Your task to perform on an android device: set default search engine in the chrome app Image 0: 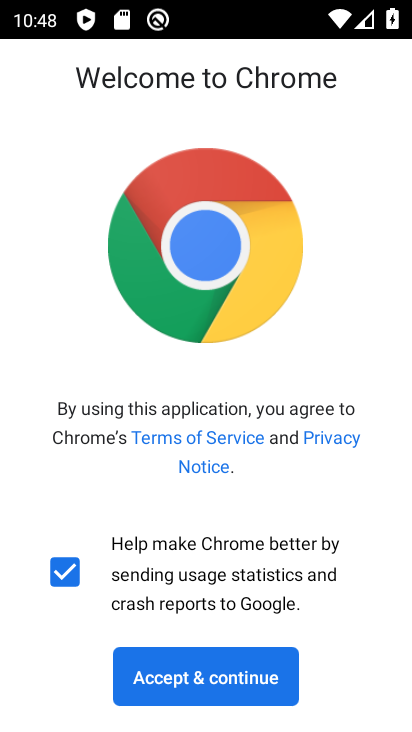
Step 0: click (193, 669)
Your task to perform on an android device: set default search engine in the chrome app Image 1: 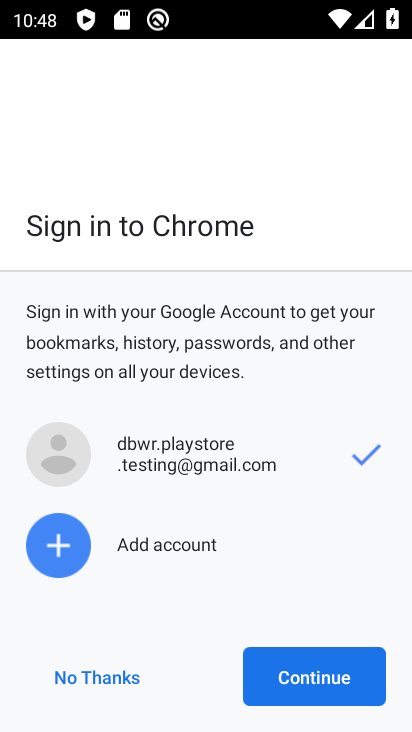
Step 1: click (325, 685)
Your task to perform on an android device: set default search engine in the chrome app Image 2: 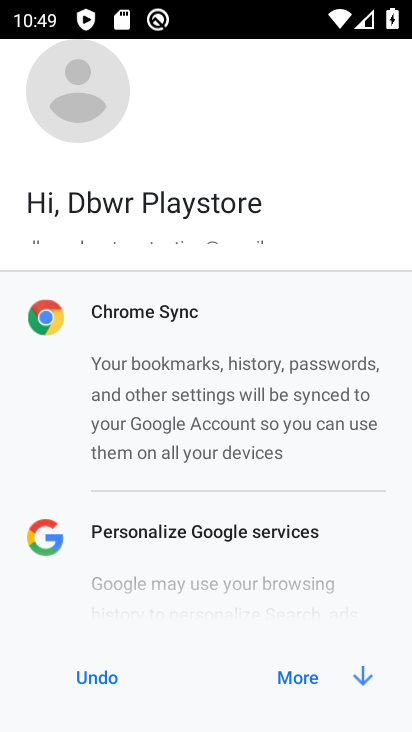
Step 2: click (297, 674)
Your task to perform on an android device: set default search engine in the chrome app Image 3: 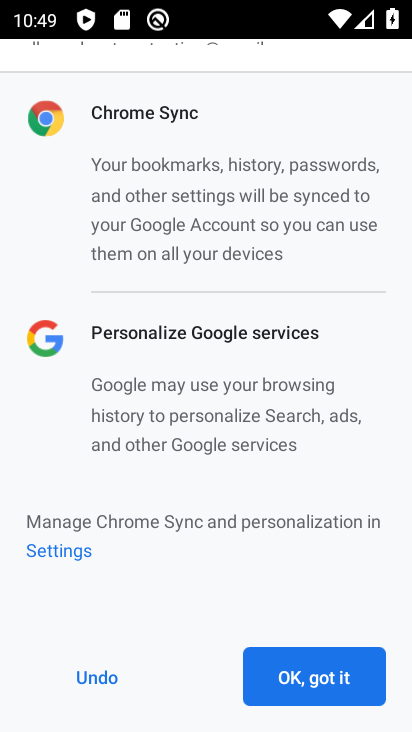
Step 3: click (297, 674)
Your task to perform on an android device: set default search engine in the chrome app Image 4: 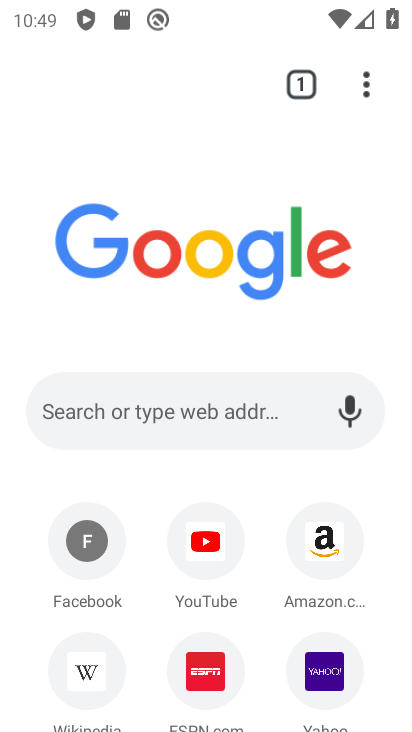
Step 4: click (361, 89)
Your task to perform on an android device: set default search engine in the chrome app Image 5: 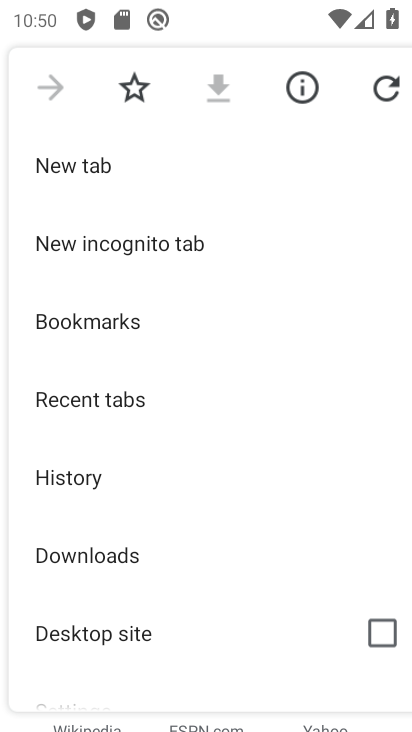
Step 5: drag from (155, 597) to (186, 212)
Your task to perform on an android device: set default search engine in the chrome app Image 6: 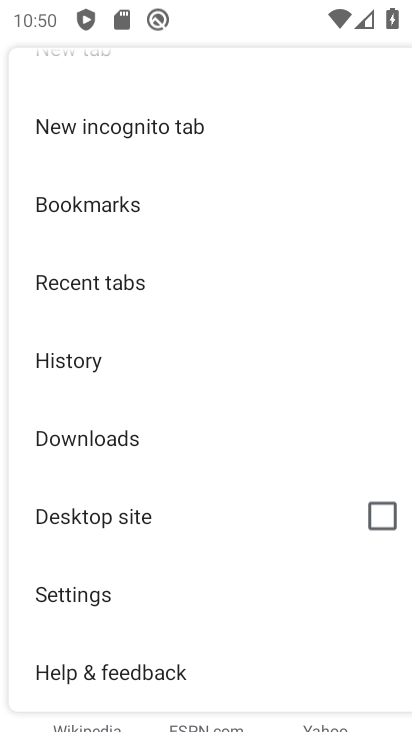
Step 6: click (85, 594)
Your task to perform on an android device: set default search engine in the chrome app Image 7: 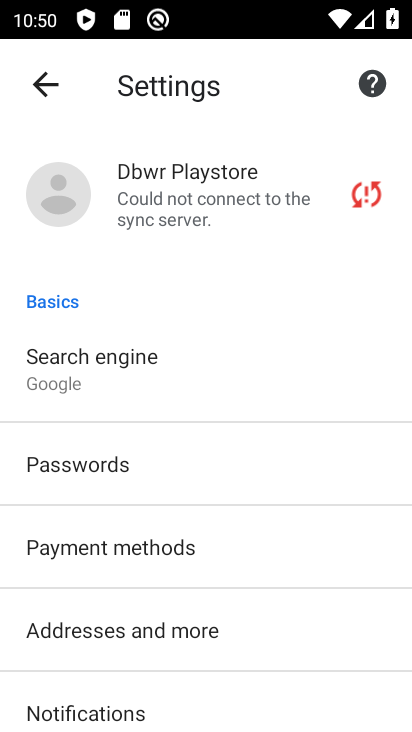
Step 7: click (61, 359)
Your task to perform on an android device: set default search engine in the chrome app Image 8: 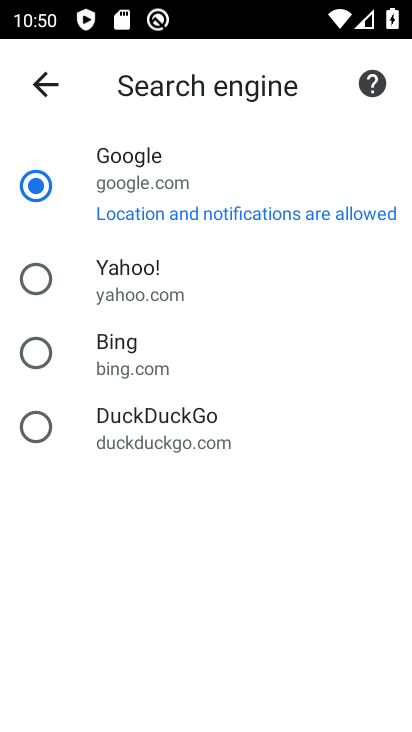
Step 8: click (25, 275)
Your task to perform on an android device: set default search engine in the chrome app Image 9: 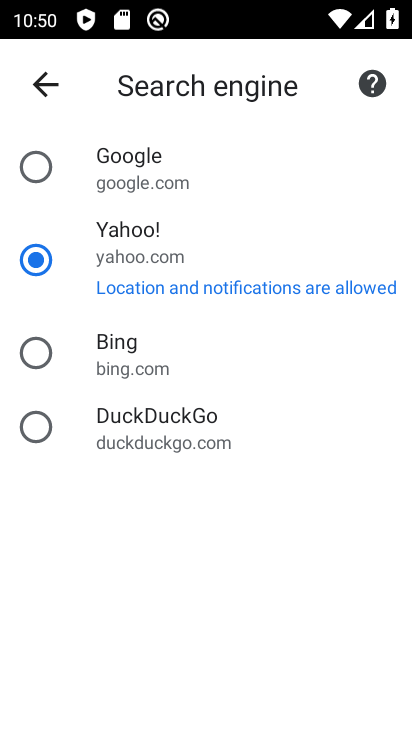
Step 9: task complete